Your task to perform on an android device: Go to sound settings Image 0: 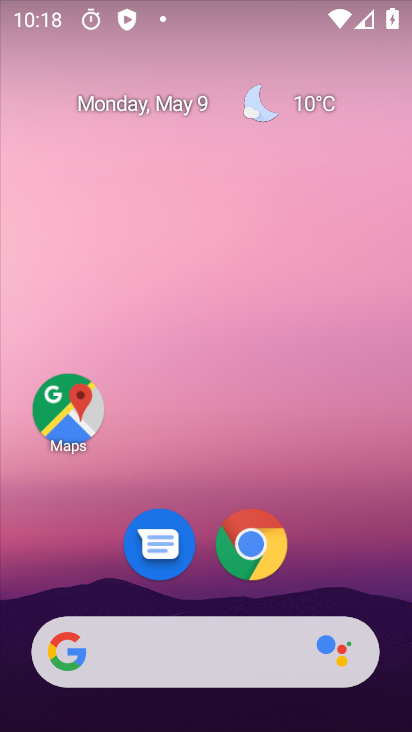
Step 0: click (407, 351)
Your task to perform on an android device: Go to sound settings Image 1: 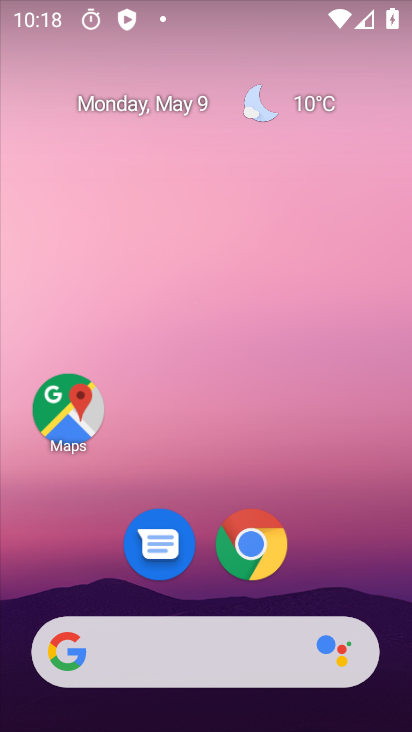
Step 1: drag from (397, 662) to (347, 225)
Your task to perform on an android device: Go to sound settings Image 2: 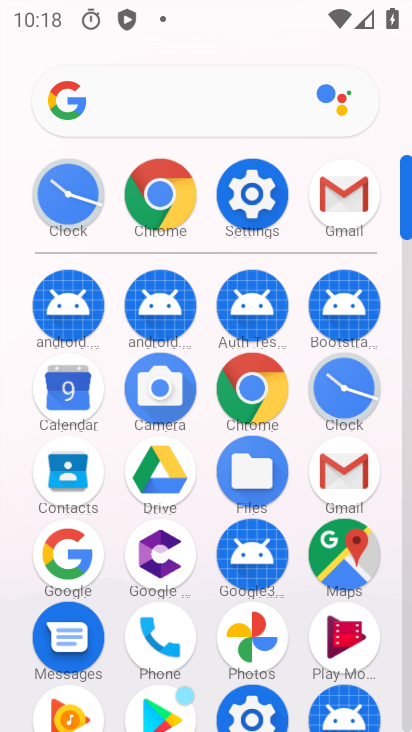
Step 2: click (253, 179)
Your task to perform on an android device: Go to sound settings Image 3: 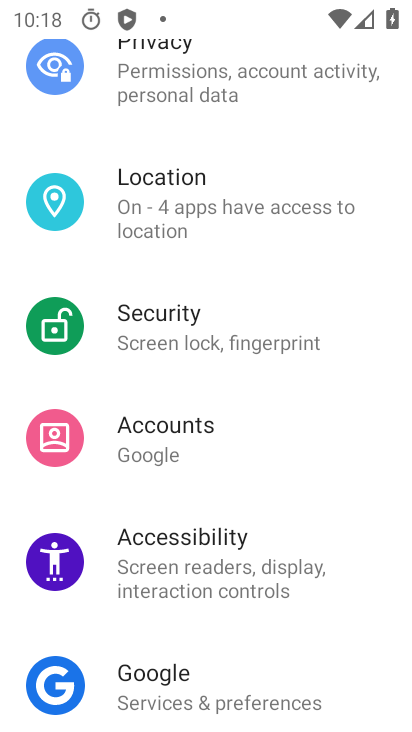
Step 3: drag from (362, 193) to (396, 651)
Your task to perform on an android device: Go to sound settings Image 4: 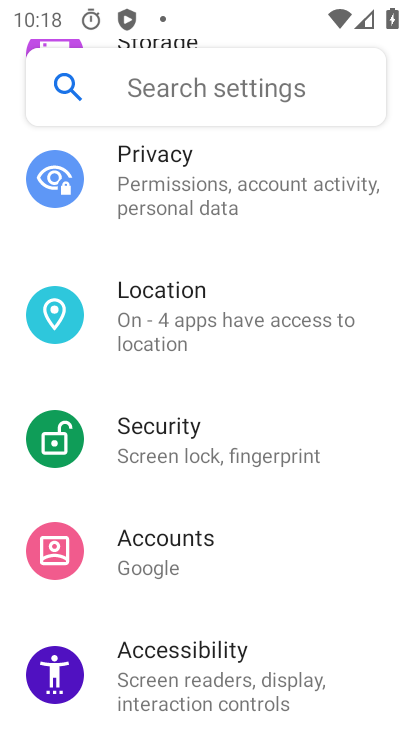
Step 4: click (348, 527)
Your task to perform on an android device: Go to sound settings Image 5: 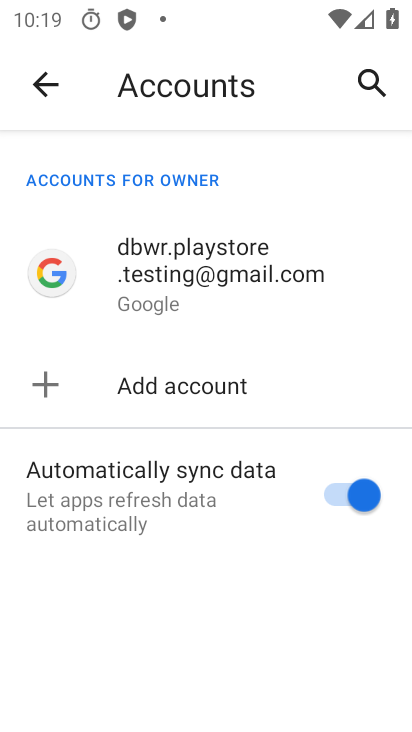
Step 5: click (38, 86)
Your task to perform on an android device: Go to sound settings Image 6: 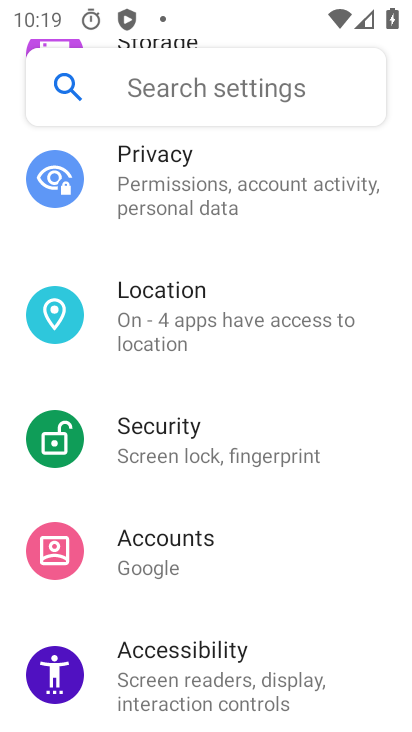
Step 6: drag from (348, 144) to (411, 591)
Your task to perform on an android device: Go to sound settings Image 7: 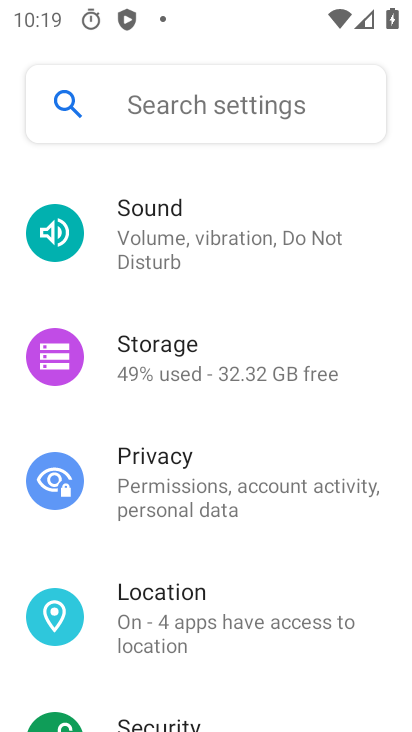
Step 7: click (139, 208)
Your task to perform on an android device: Go to sound settings Image 8: 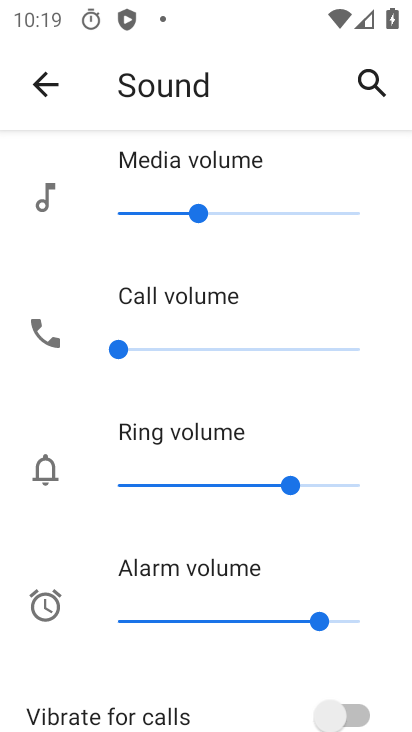
Step 8: task complete